Your task to perform on an android device: Find coffee shops on Maps Image 0: 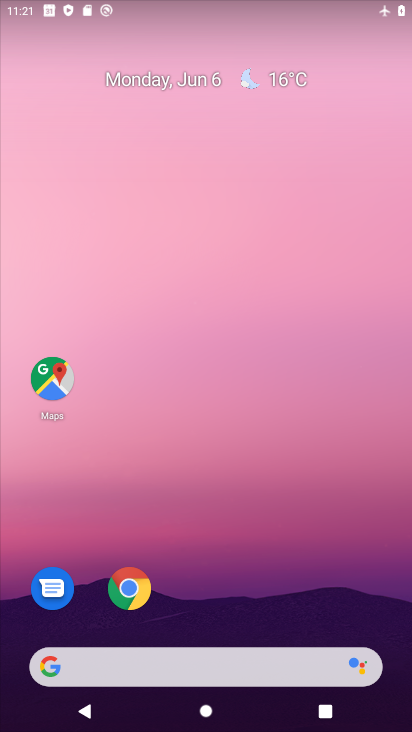
Step 0: click (52, 379)
Your task to perform on an android device: Find coffee shops on Maps Image 1: 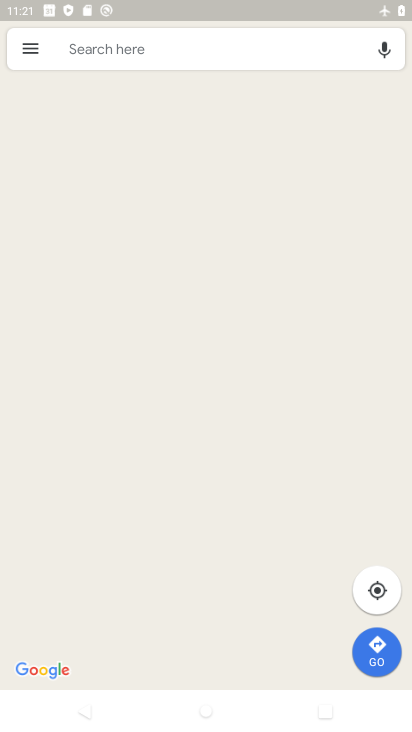
Step 1: click (142, 55)
Your task to perform on an android device: Find coffee shops on Maps Image 2: 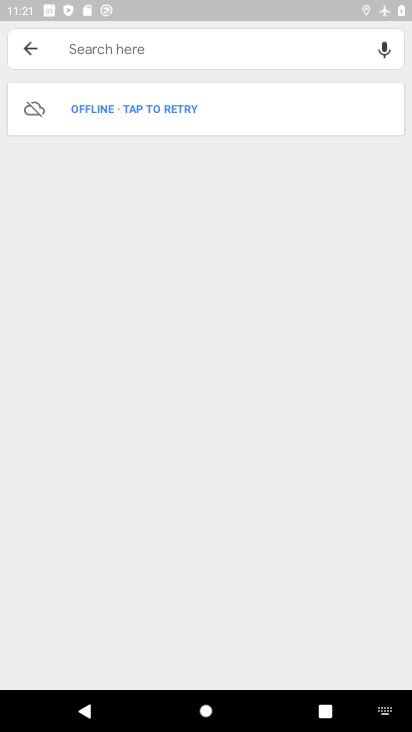
Step 2: type "coffee shops"
Your task to perform on an android device: Find coffee shops on Maps Image 3: 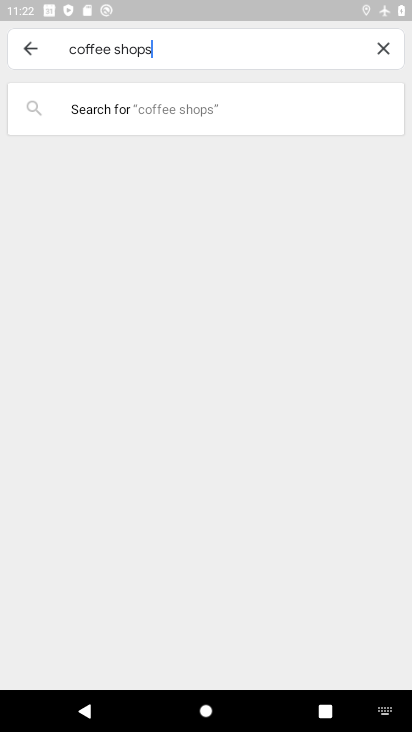
Step 3: task complete